Your task to perform on an android device: Go to privacy settings Image 0: 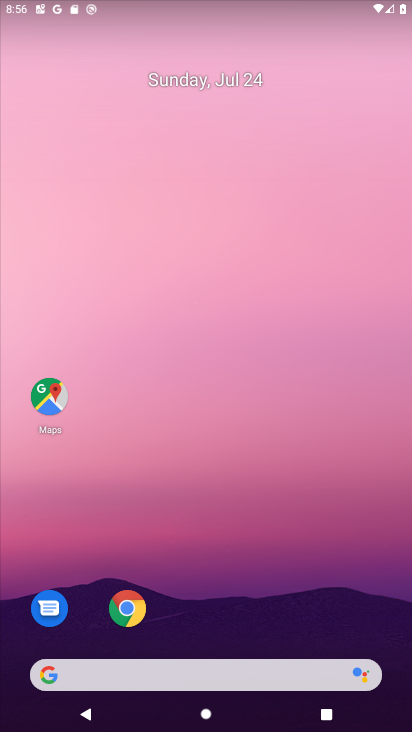
Step 0: drag from (297, 284) to (285, 182)
Your task to perform on an android device: Go to privacy settings Image 1: 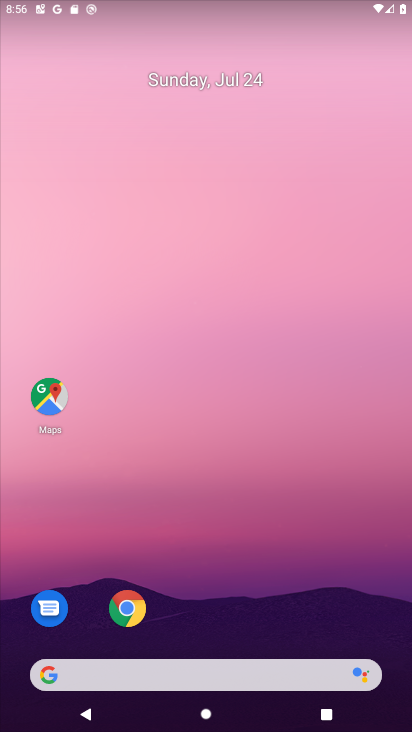
Step 1: drag from (147, 595) to (266, 82)
Your task to perform on an android device: Go to privacy settings Image 2: 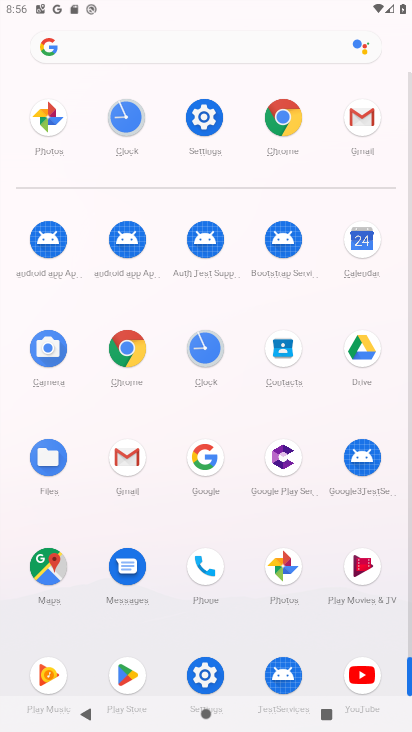
Step 2: click (207, 123)
Your task to perform on an android device: Go to privacy settings Image 3: 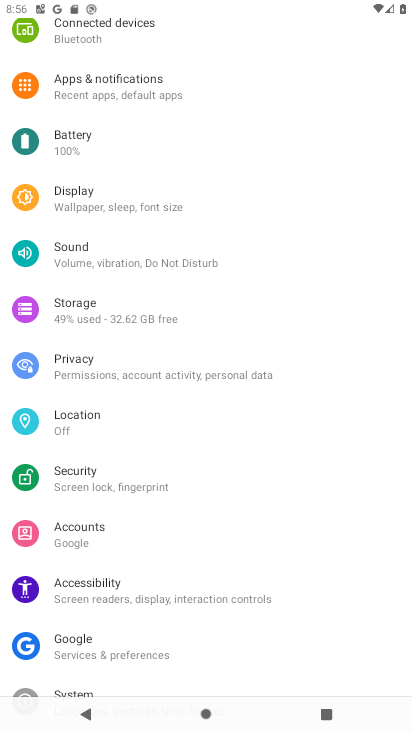
Step 3: click (91, 350)
Your task to perform on an android device: Go to privacy settings Image 4: 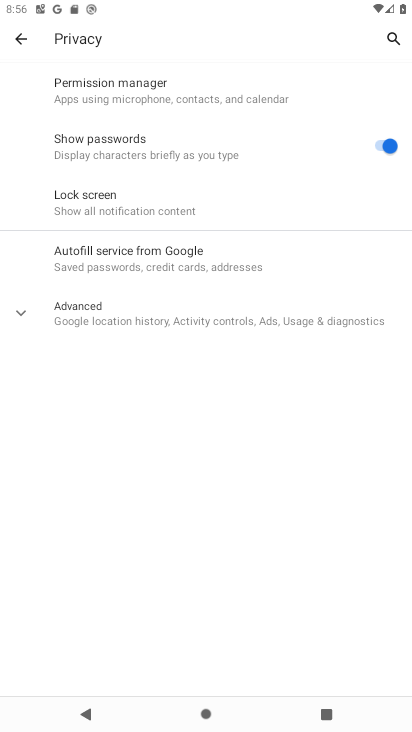
Step 4: task complete